Your task to perform on an android device: Open internet settings Image 0: 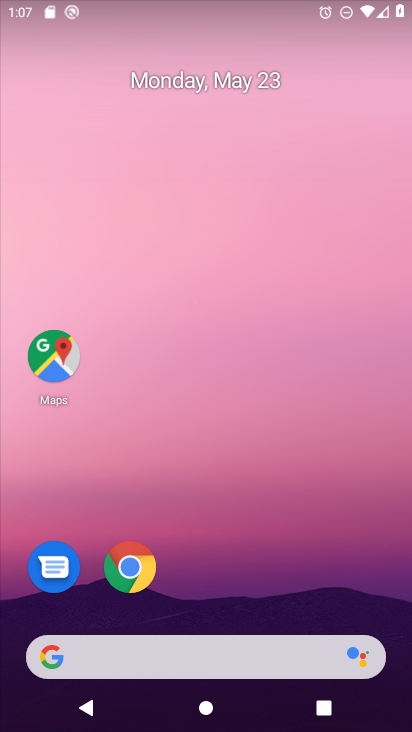
Step 0: drag from (265, 15) to (195, 554)
Your task to perform on an android device: Open internet settings Image 1: 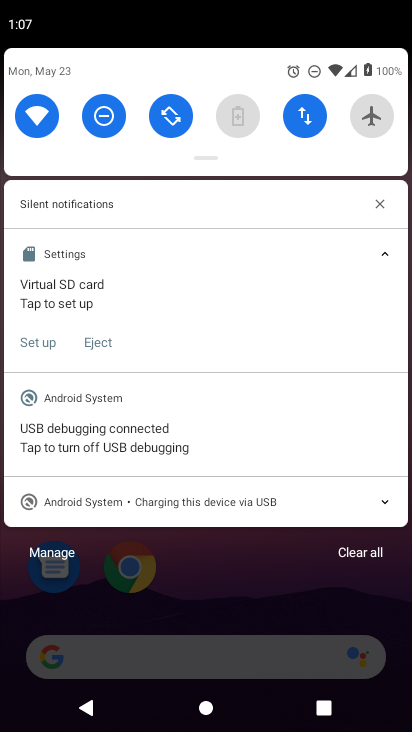
Step 1: click (313, 126)
Your task to perform on an android device: Open internet settings Image 2: 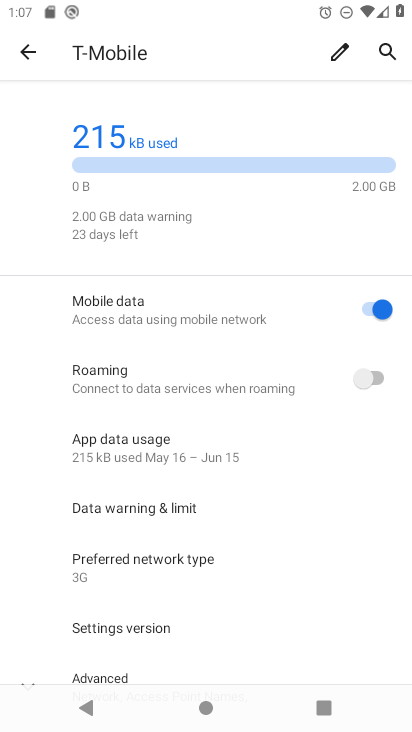
Step 2: task complete